Your task to perform on an android device: Go to internet settings Image 0: 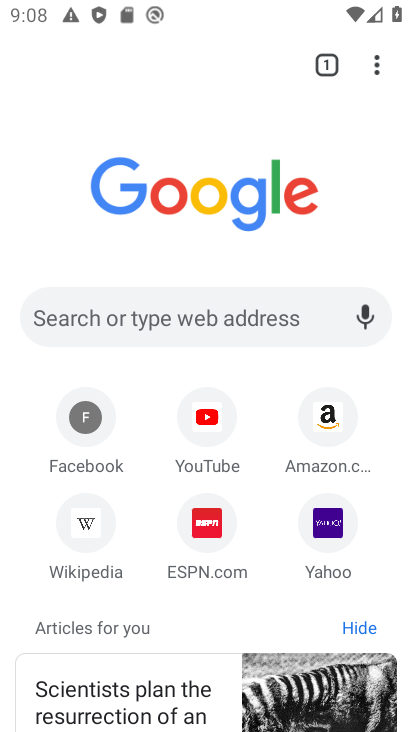
Step 0: press home button
Your task to perform on an android device: Go to internet settings Image 1: 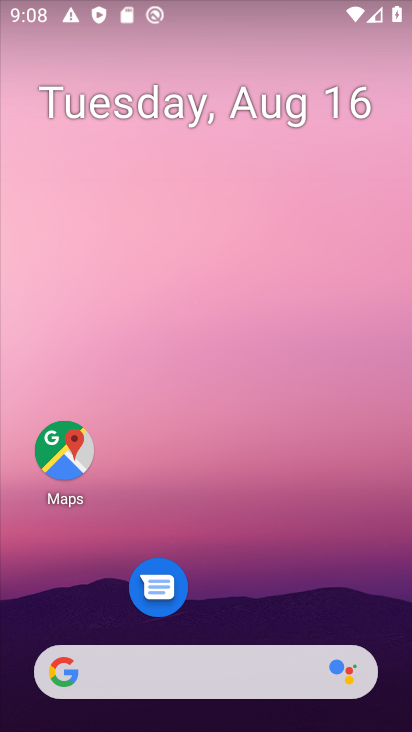
Step 1: drag from (223, 625) to (140, 6)
Your task to perform on an android device: Go to internet settings Image 2: 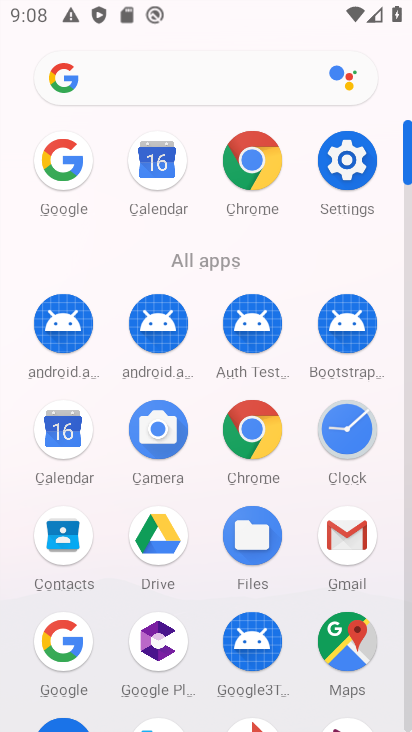
Step 2: click (344, 165)
Your task to perform on an android device: Go to internet settings Image 3: 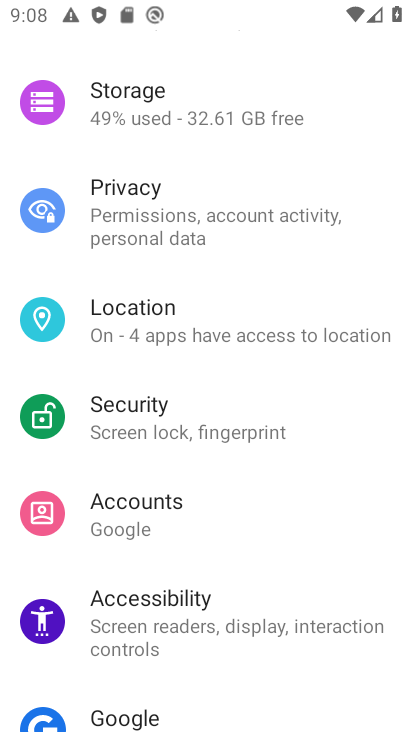
Step 3: drag from (352, 136) to (202, 681)
Your task to perform on an android device: Go to internet settings Image 4: 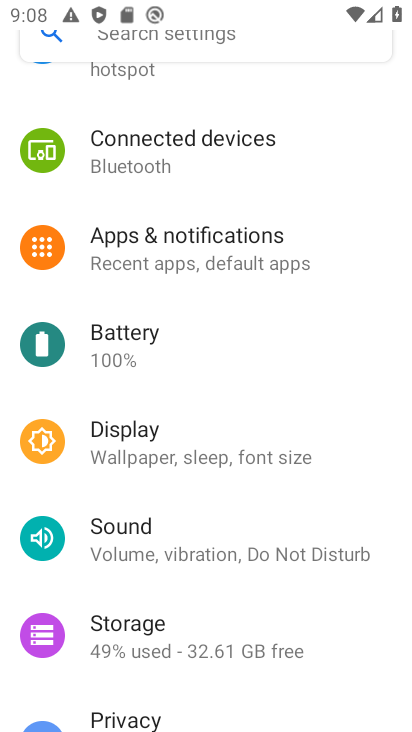
Step 4: drag from (179, 109) to (19, 590)
Your task to perform on an android device: Go to internet settings Image 5: 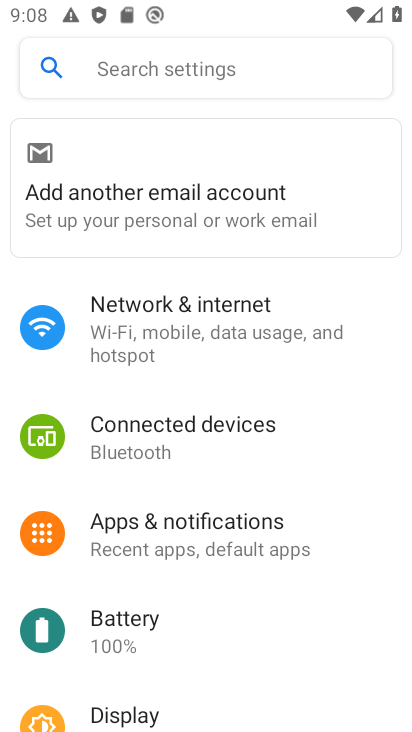
Step 5: click (208, 350)
Your task to perform on an android device: Go to internet settings Image 6: 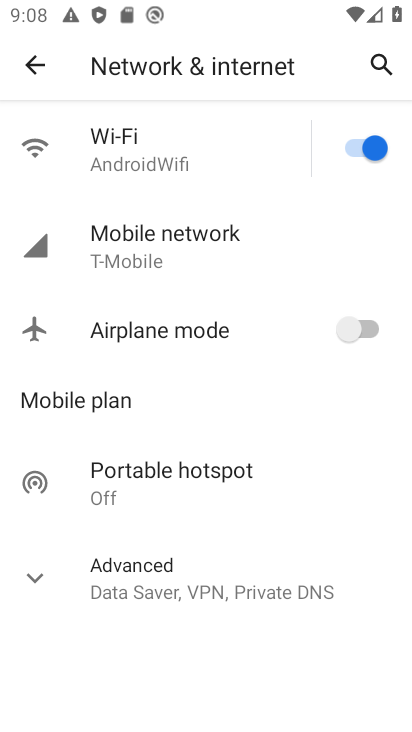
Step 6: click (160, 263)
Your task to perform on an android device: Go to internet settings Image 7: 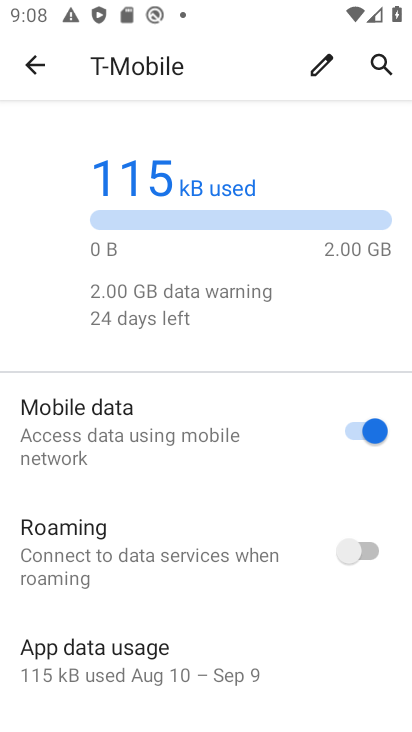
Step 7: task complete